Your task to perform on an android device: Open Youtube and go to "Your channel" Image 0: 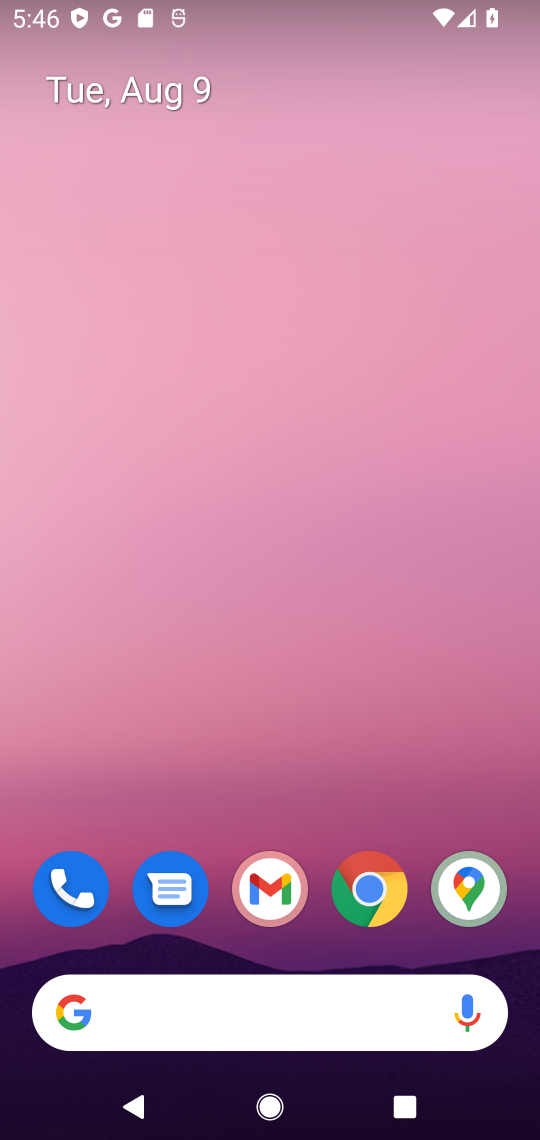
Step 0: drag from (273, 1002) to (348, 197)
Your task to perform on an android device: Open Youtube and go to "Your channel" Image 1: 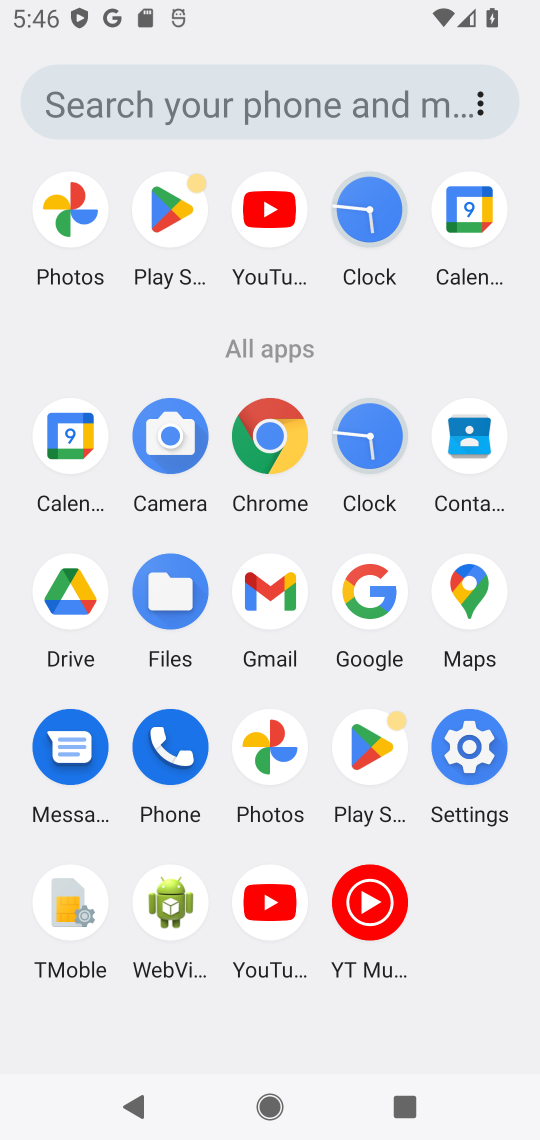
Step 1: click (269, 903)
Your task to perform on an android device: Open Youtube and go to "Your channel" Image 2: 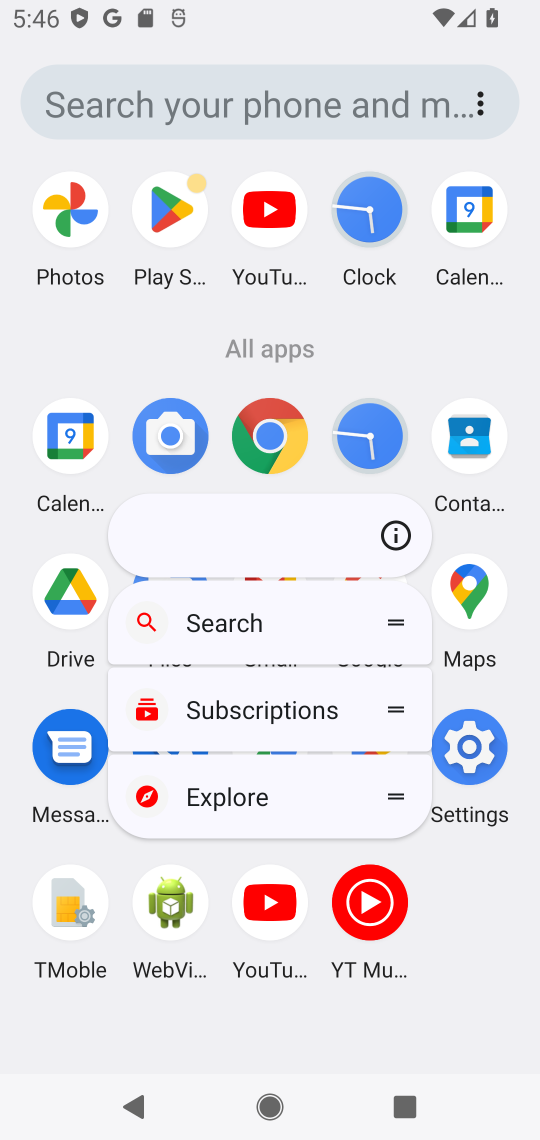
Step 2: click (296, 891)
Your task to perform on an android device: Open Youtube and go to "Your channel" Image 3: 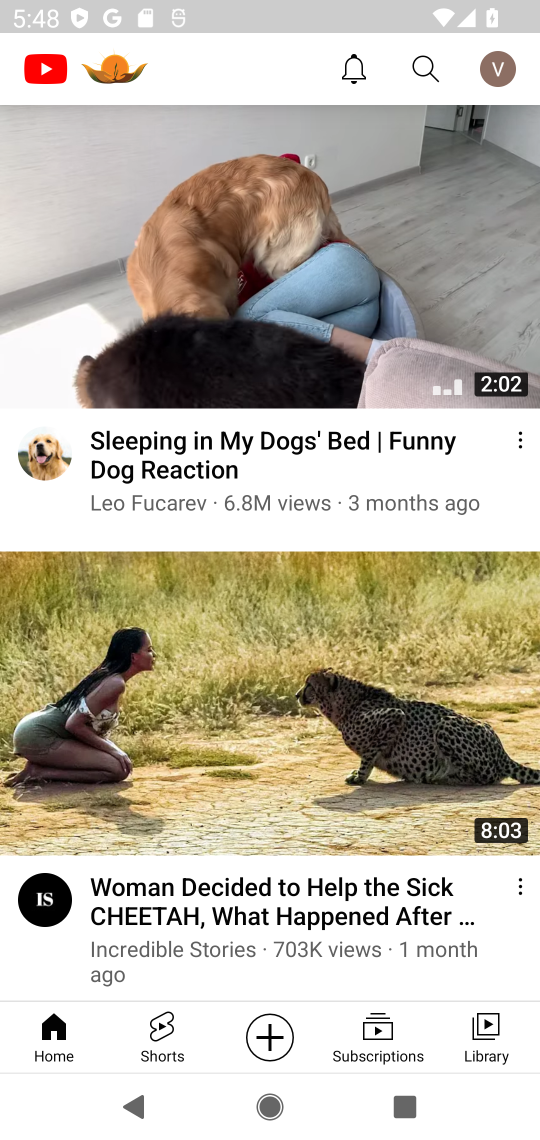
Step 3: click (501, 60)
Your task to perform on an android device: Open Youtube and go to "Your channel" Image 4: 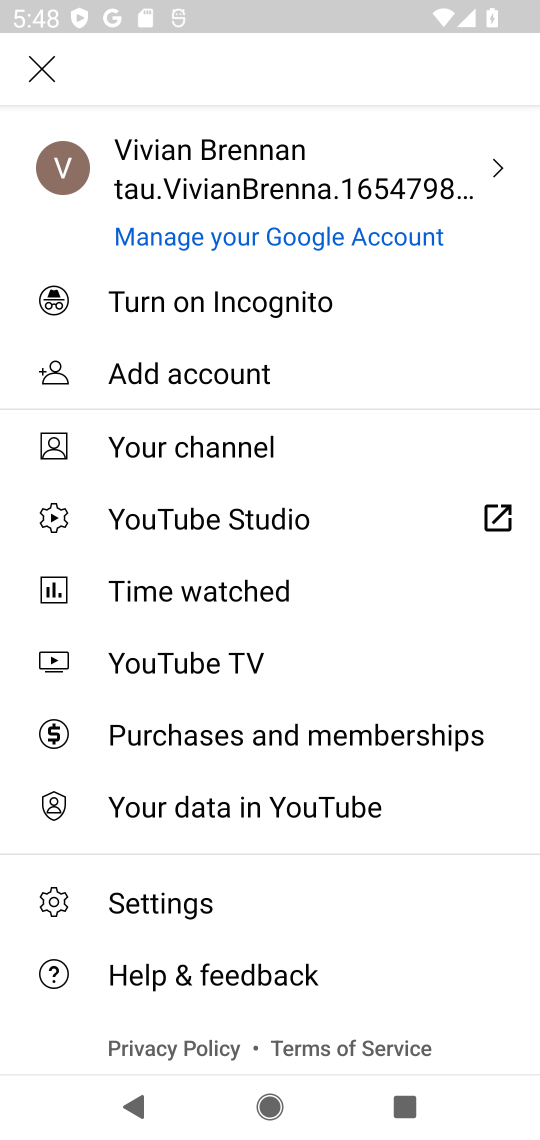
Step 4: click (193, 441)
Your task to perform on an android device: Open Youtube and go to "Your channel" Image 5: 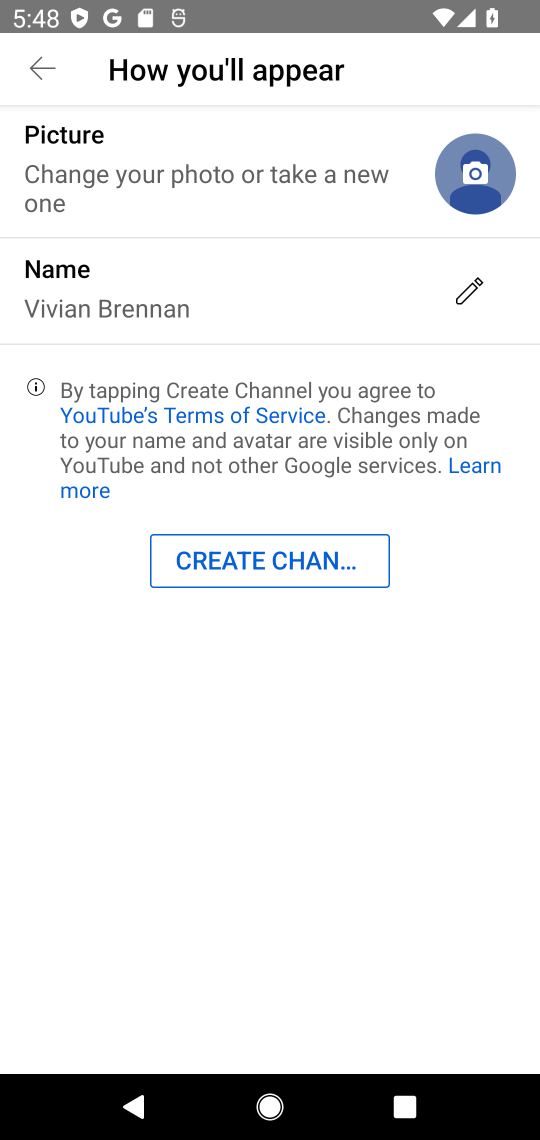
Step 5: task complete